Your task to perform on an android device: Open display settings Image 0: 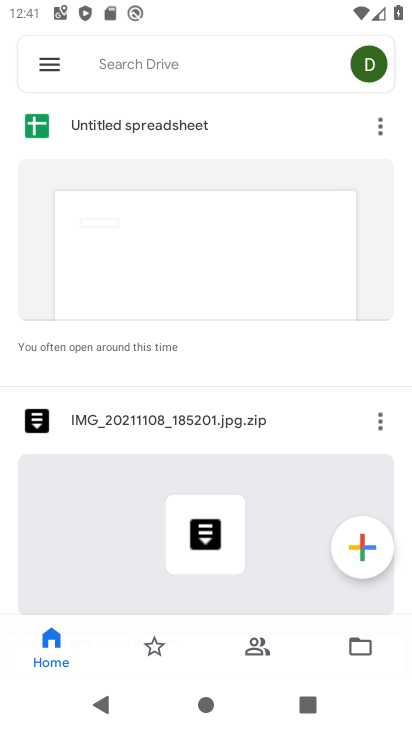
Step 0: press home button
Your task to perform on an android device: Open display settings Image 1: 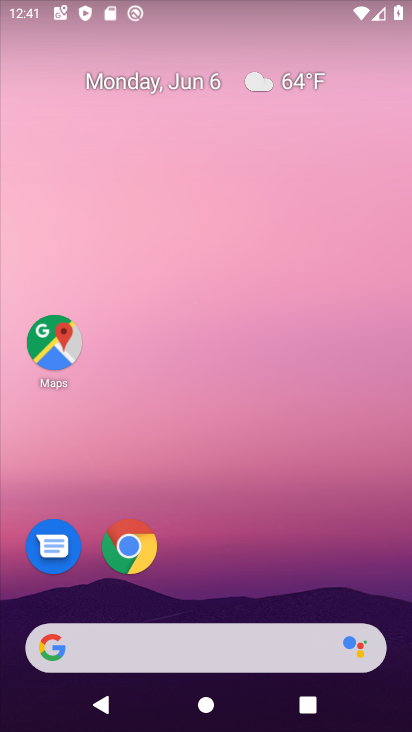
Step 1: drag from (185, 560) to (217, 223)
Your task to perform on an android device: Open display settings Image 2: 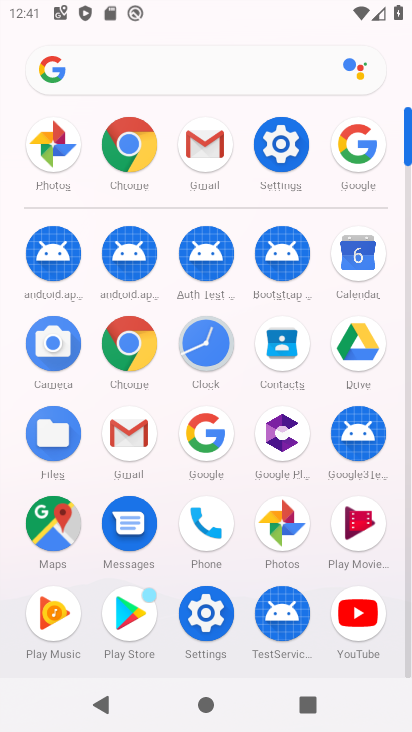
Step 2: click (279, 122)
Your task to perform on an android device: Open display settings Image 3: 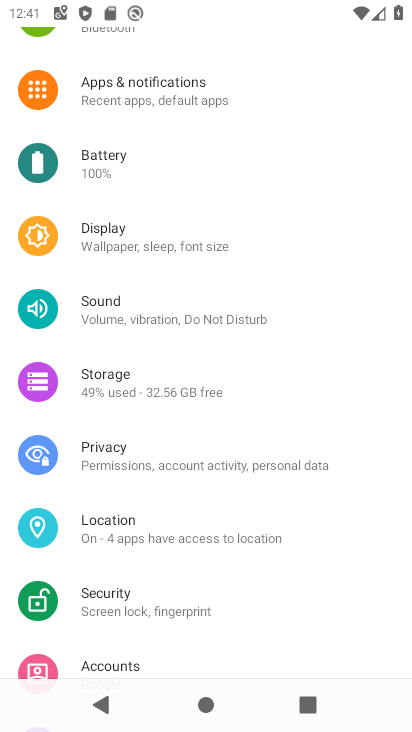
Step 3: click (115, 238)
Your task to perform on an android device: Open display settings Image 4: 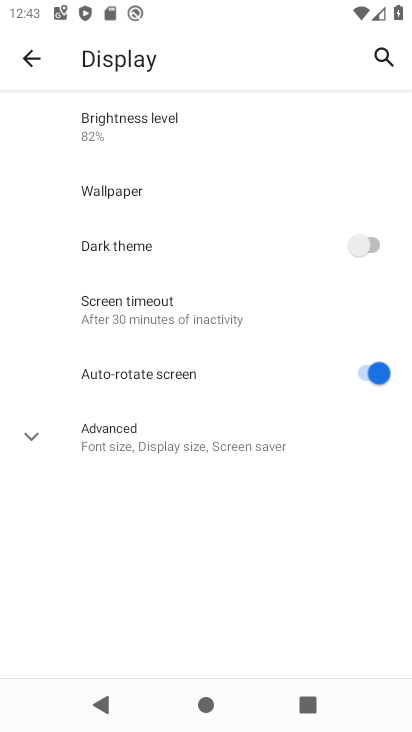
Step 4: task complete